Your task to perform on an android device: Open Yahoo.com Image 0: 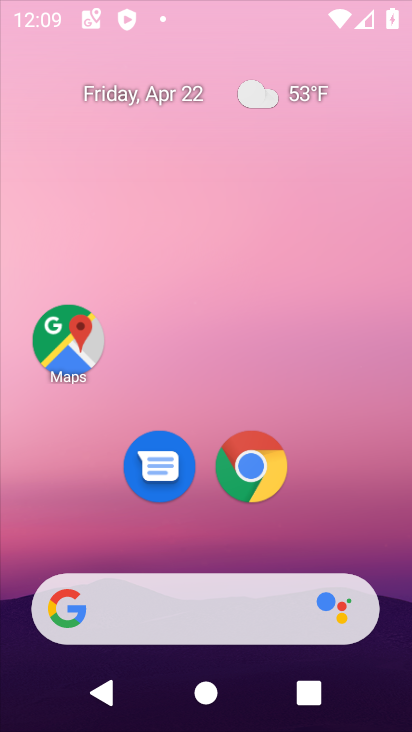
Step 0: drag from (301, 483) to (231, 53)
Your task to perform on an android device: Open Yahoo.com Image 1: 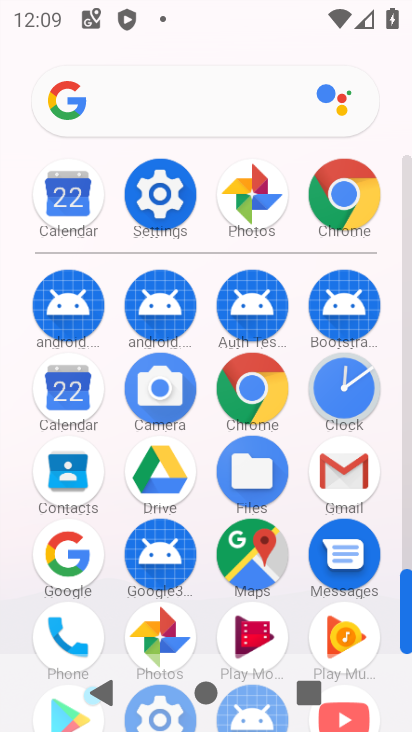
Step 1: click (342, 193)
Your task to perform on an android device: Open Yahoo.com Image 2: 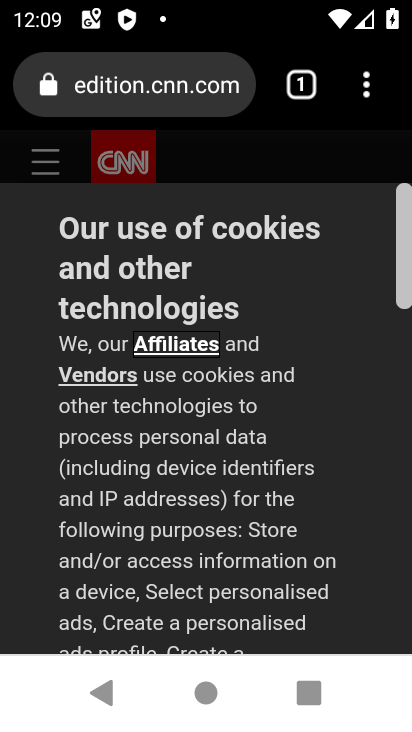
Step 2: click (176, 93)
Your task to perform on an android device: Open Yahoo.com Image 3: 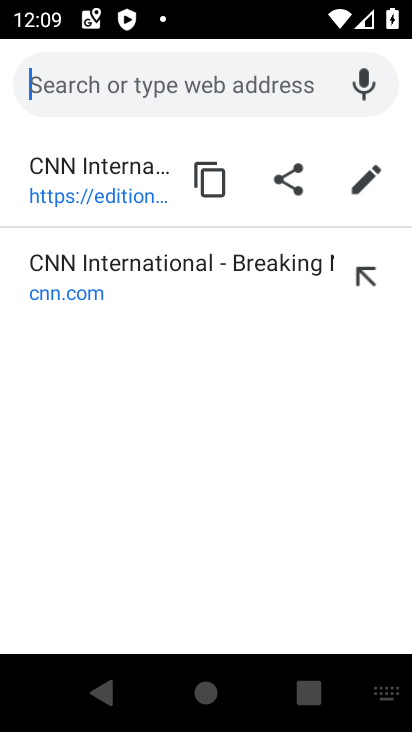
Step 3: type "Yahoo.com"
Your task to perform on an android device: Open Yahoo.com Image 4: 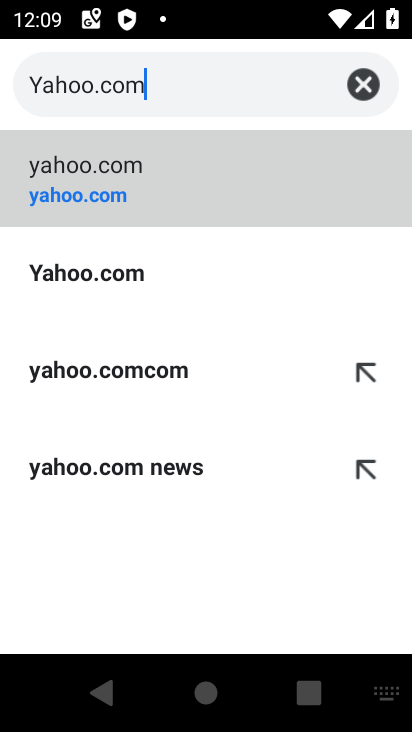
Step 4: click (222, 207)
Your task to perform on an android device: Open Yahoo.com Image 5: 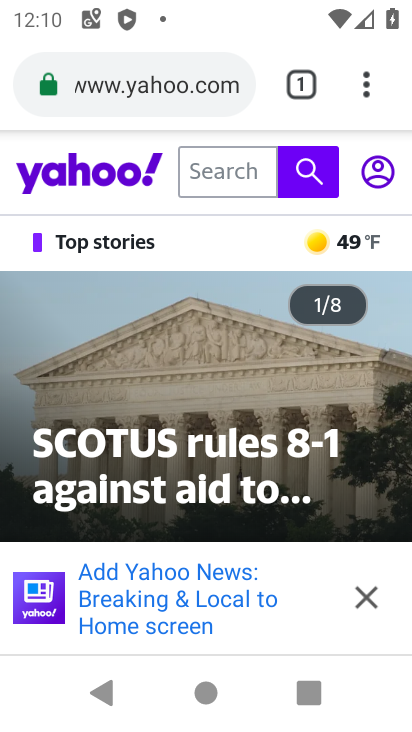
Step 5: task complete